Your task to perform on an android device: Open internet settings Image 0: 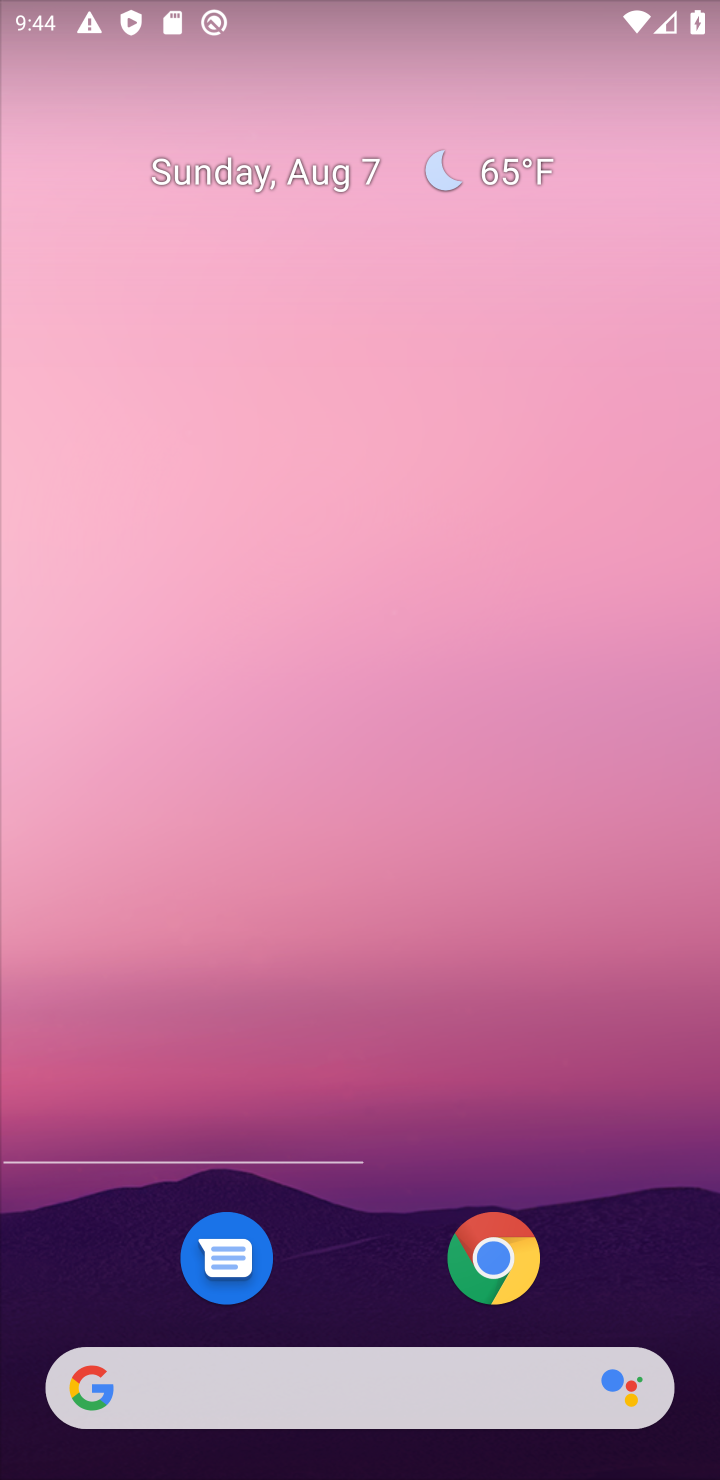
Step 0: press home button
Your task to perform on an android device: Open internet settings Image 1: 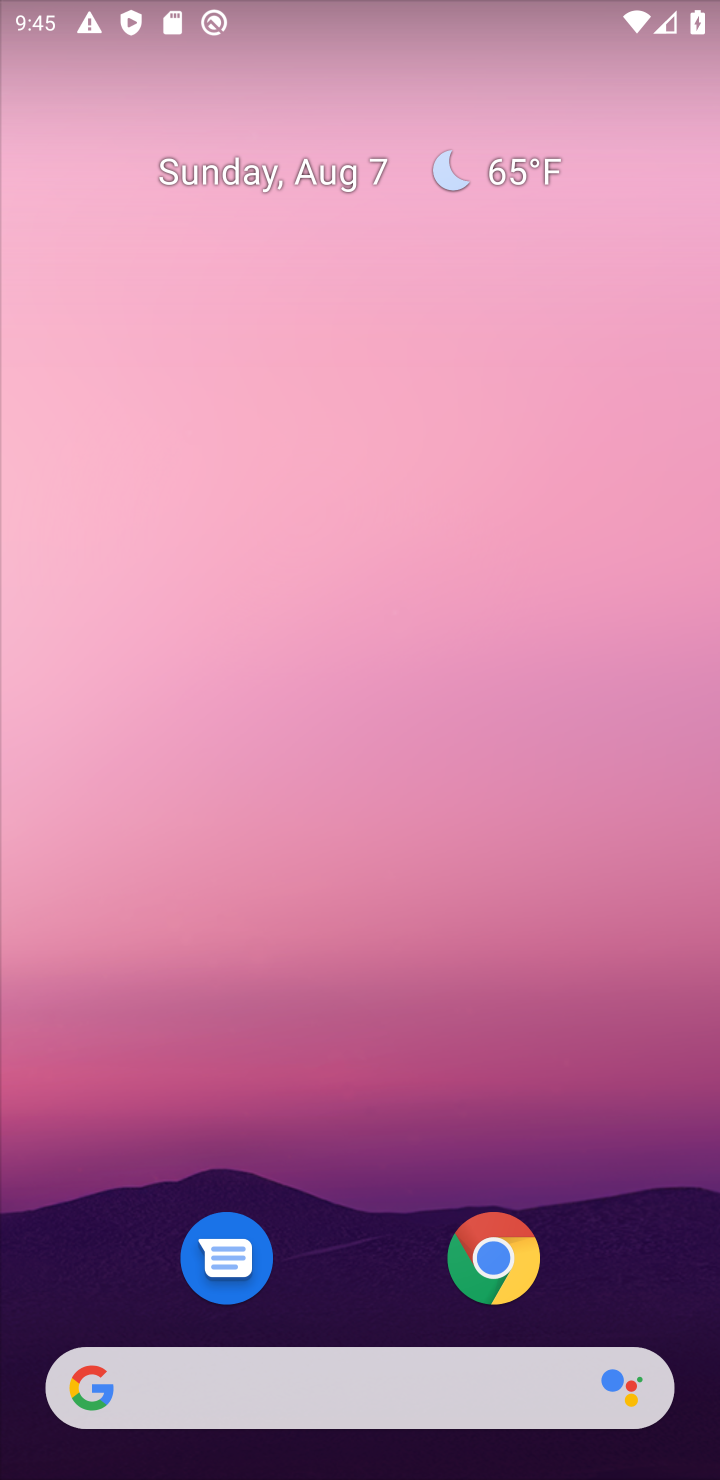
Step 1: drag from (390, 1151) to (489, 320)
Your task to perform on an android device: Open internet settings Image 2: 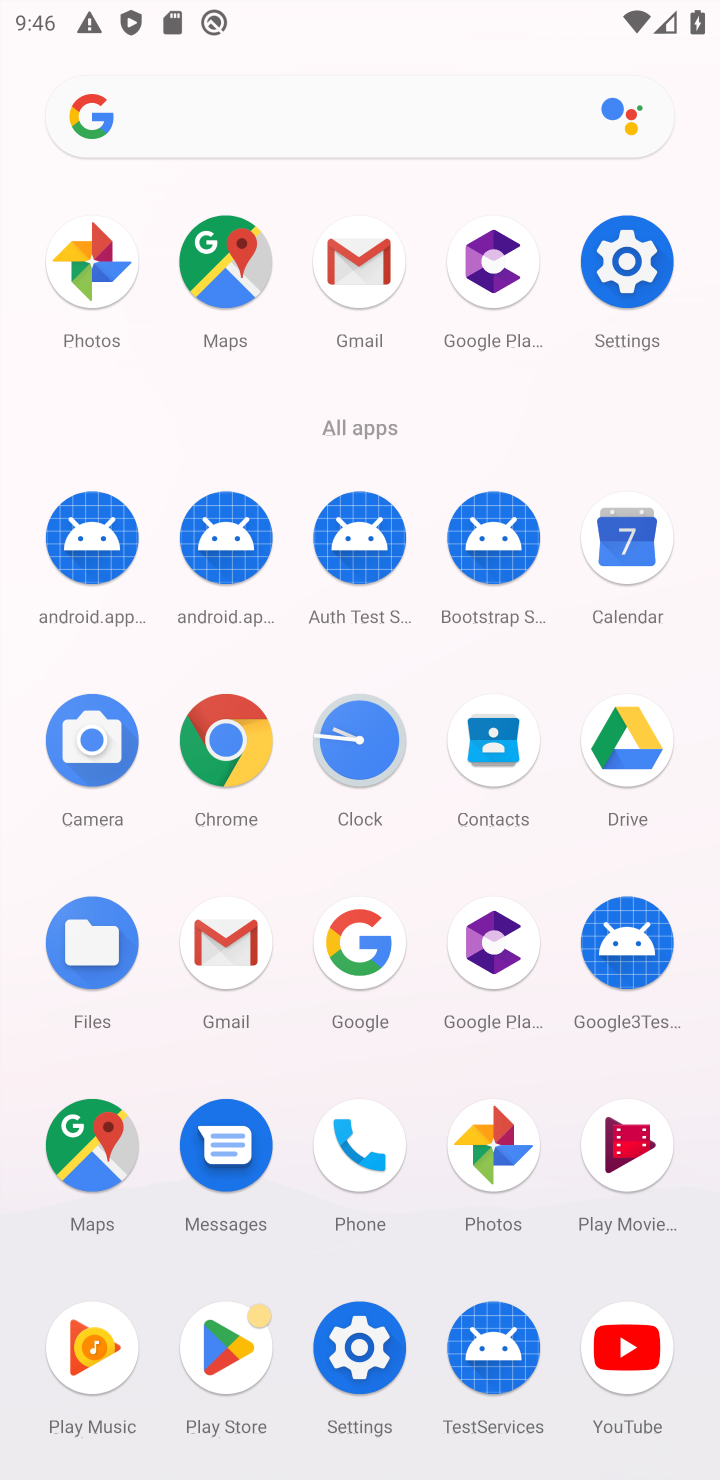
Step 2: click (354, 1404)
Your task to perform on an android device: Open internet settings Image 3: 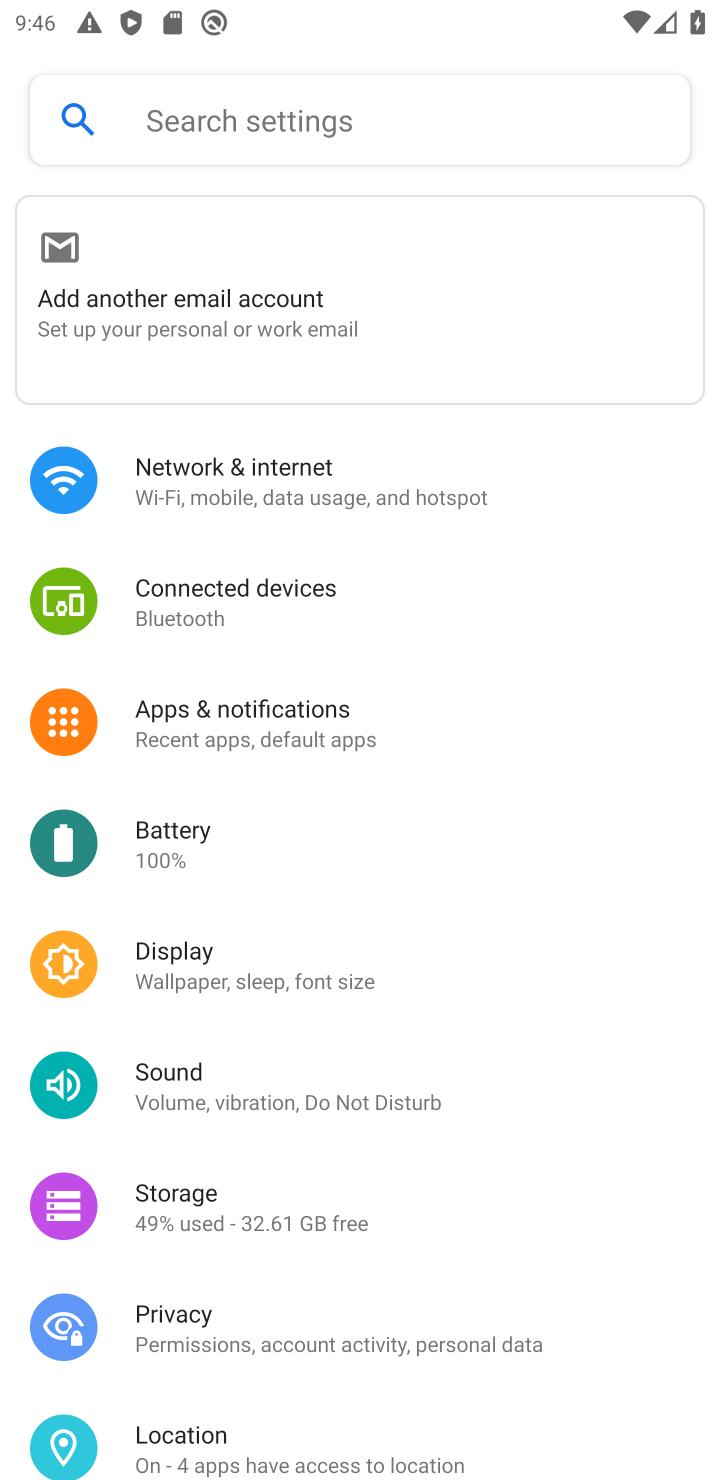
Step 3: click (204, 507)
Your task to perform on an android device: Open internet settings Image 4: 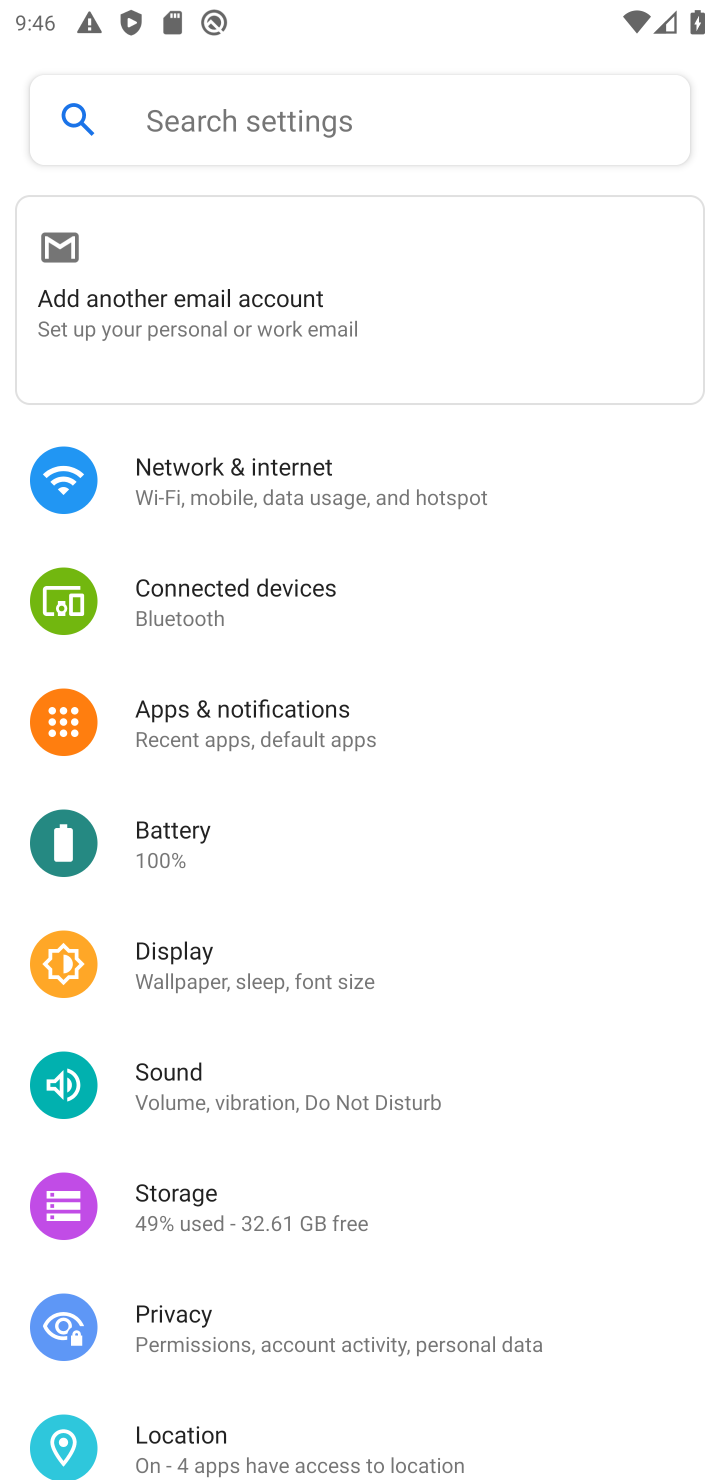
Step 4: task complete